Your task to perform on an android device: Toggle the flashlight Image 0: 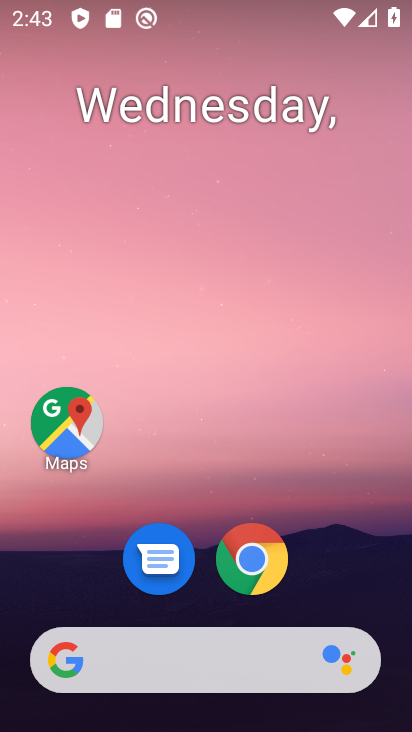
Step 0: drag from (182, 595) to (211, 59)
Your task to perform on an android device: Toggle the flashlight Image 1: 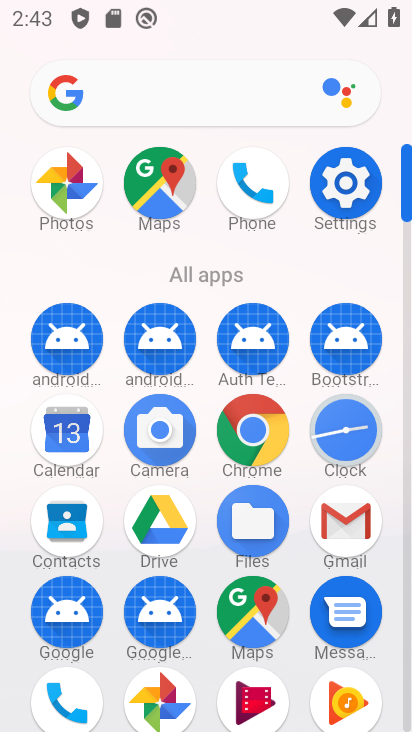
Step 1: click (347, 185)
Your task to perform on an android device: Toggle the flashlight Image 2: 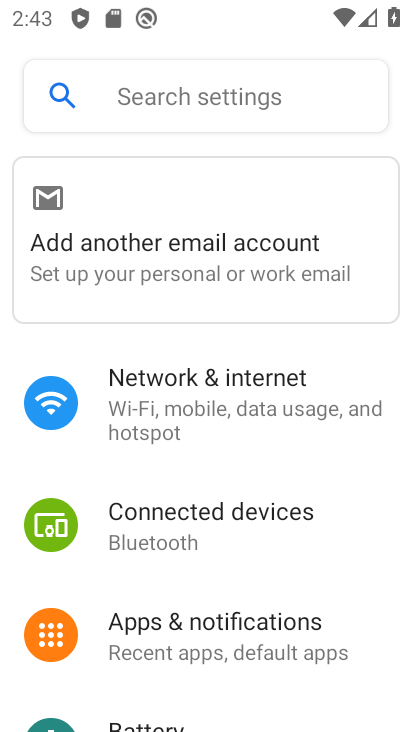
Step 2: click (146, 98)
Your task to perform on an android device: Toggle the flashlight Image 3: 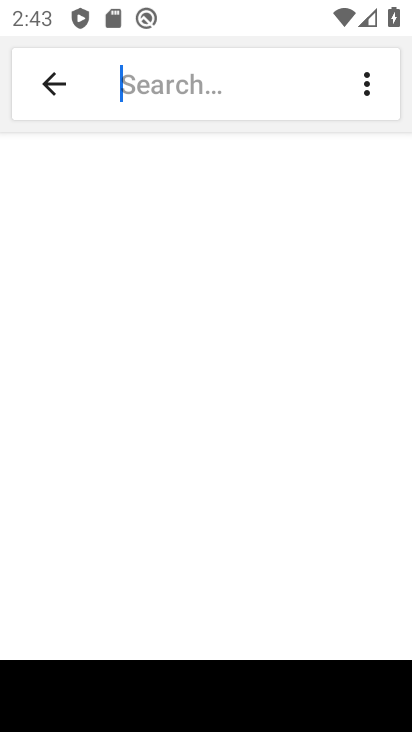
Step 3: type "flashlight"
Your task to perform on an android device: Toggle the flashlight Image 4: 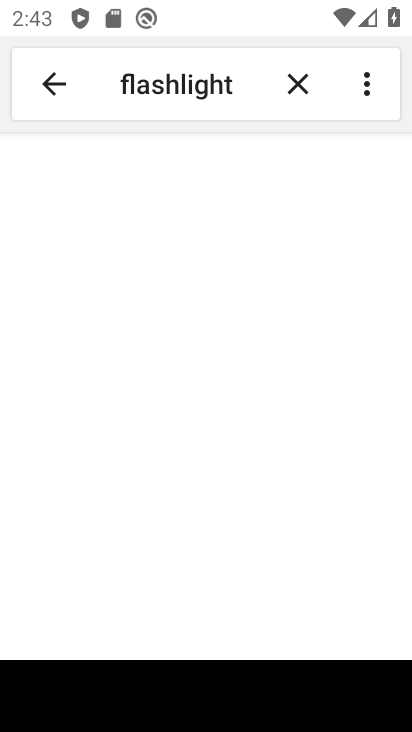
Step 4: task complete